Your task to perform on an android device: Open Google Maps Image 0: 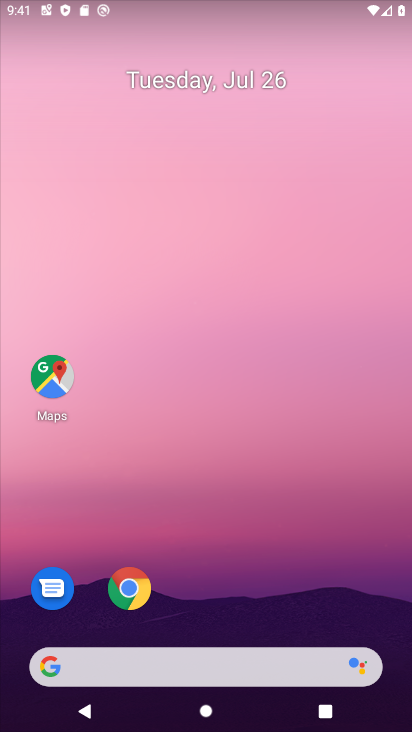
Step 0: click (53, 380)
Your task to perform on an android device: Open Google Maps Image 1: 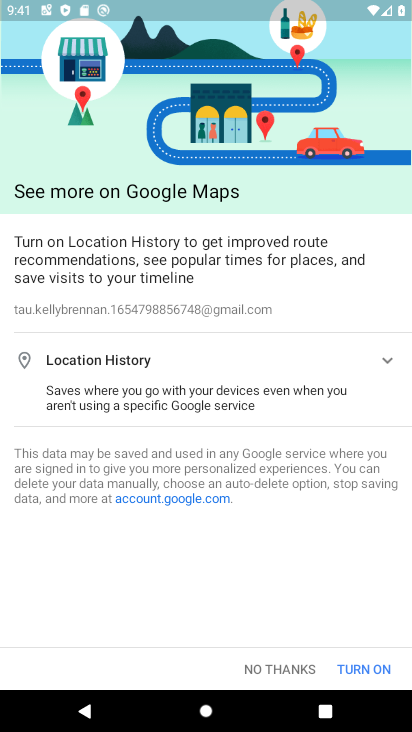
Step 1: task complete